Your task to perform on an android device: Open calendar and show me the fourth week of next month Image 0: 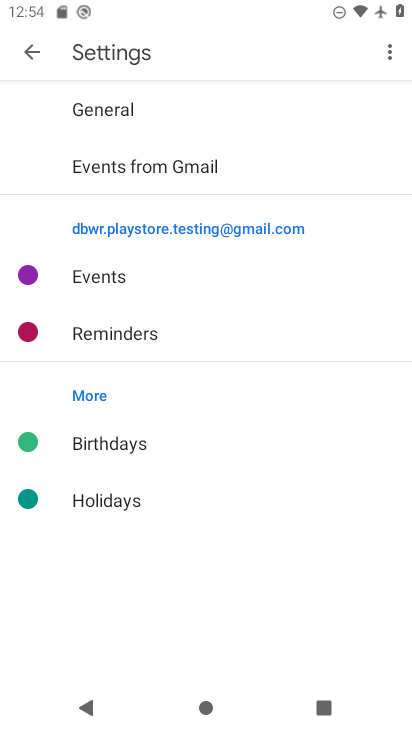
Step 0: press home button
Your task to perform on an android device: Open calendar and show me the fourth week of next month Image 1: 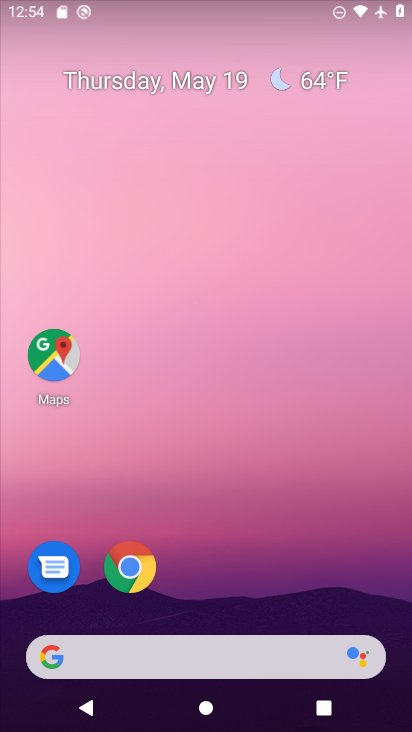
Step 1: drag from (251, 508) to (270, 95)
Your task to perform on an android device: Open calendar and show me the fourth week of next month Image 2: 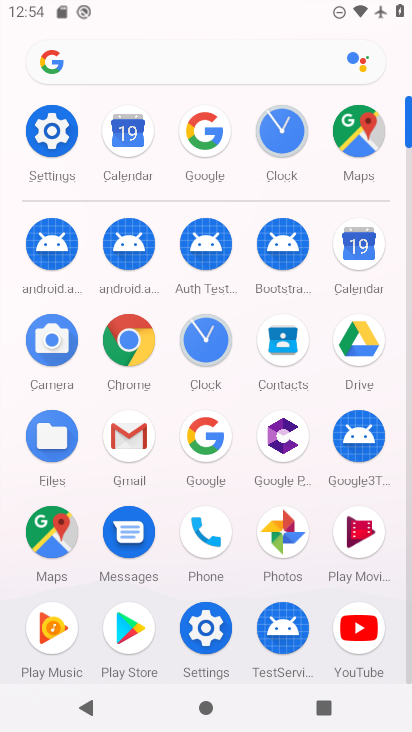
Step 2: click (358, 258)
Your task to perform on an android device: Open calendar and show me the fourth week of next month Image 3: 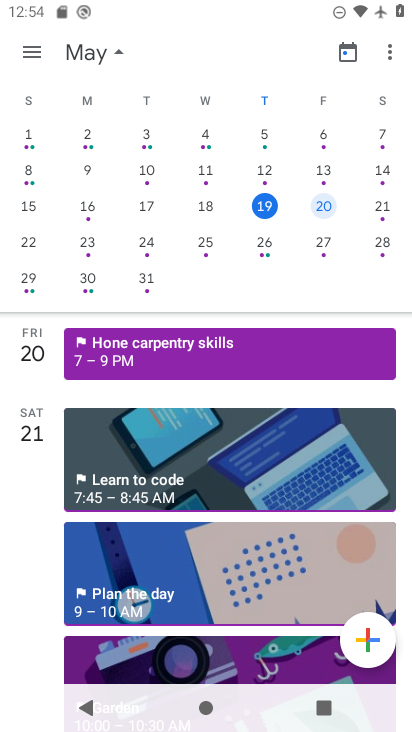
Step 3: drag from (346, 248) to (42, 294)
Your task to perform on an android device: Open calendar and show me the fourth week of next month Image 4: 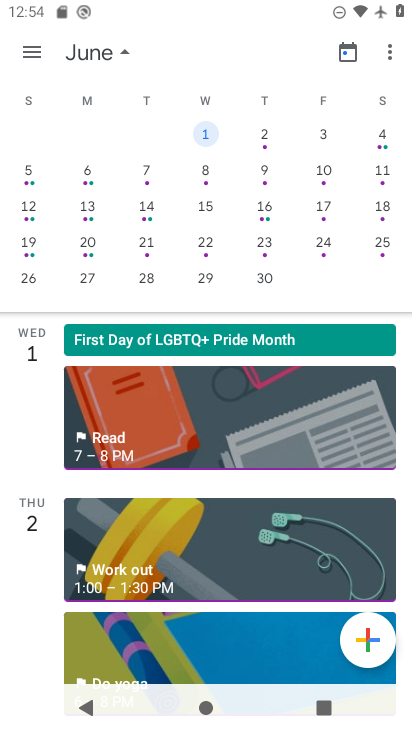
Step 4: click (29, 255)
Your task to perform on an android device: Open calendar and show me the fourth week of next month Image 5: 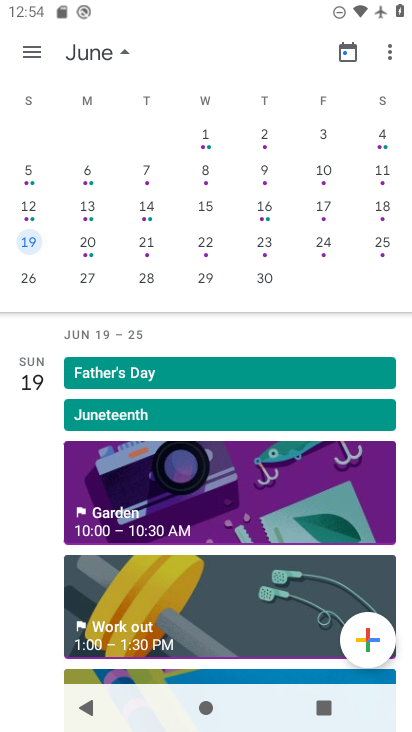
Step 5: click (92, 255)
Your task to perform on an android device: Open calendar and show me the fourth week of next month Image 6: 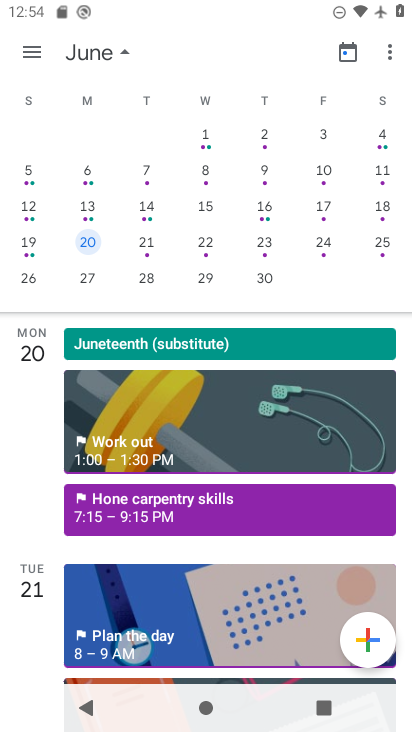
Step 6: click (148, 256)
Your task to perform on an android device: Open calendar and show me the fourth week of next month Image 7: 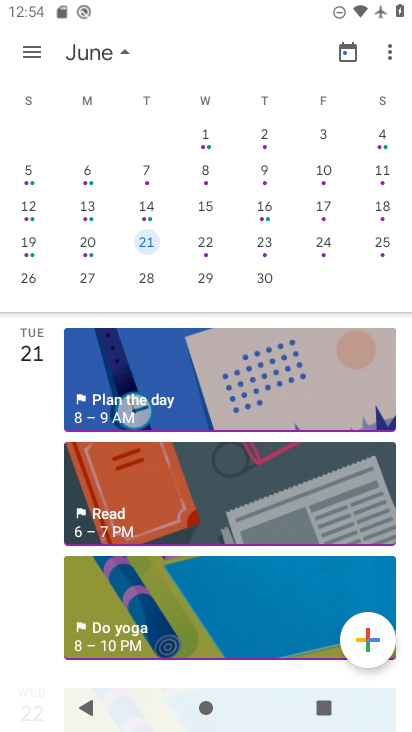
Step 7: click (202, 259)
Your task to perform on an android device: Open calendar and show me the fourth week of next month Image 8: 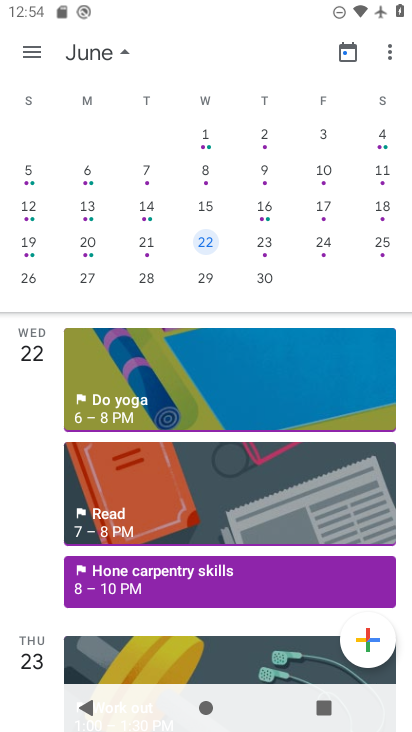
Step 8: click (272, 254)
Your task to perform on an android device: Open calendar and show me the fourth week of next month Image 9: 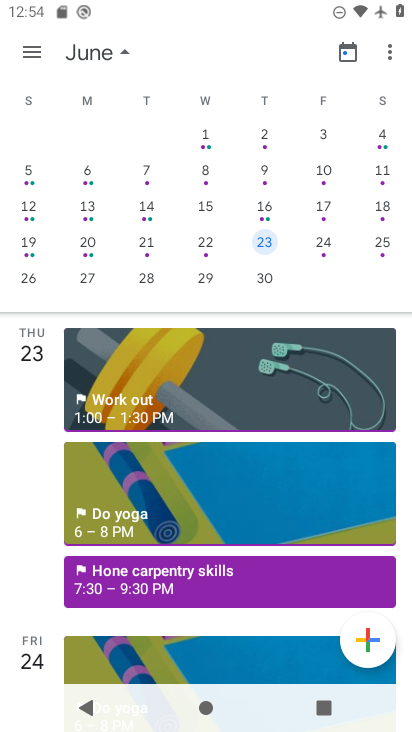
Step 9: click (323, 253)
Your task to perform on an android device: Open calendar and show me the fourth week of next month Image 10: 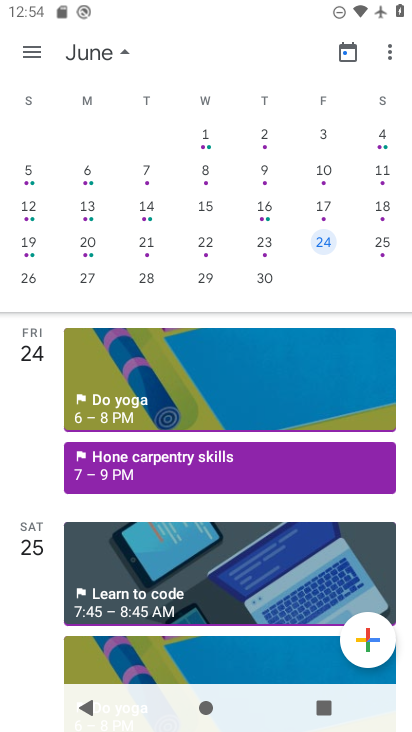
Step 10: click (388, 253)
Your task to perform on an android device: Open calendar and show me the fourth week of next month Image 11: 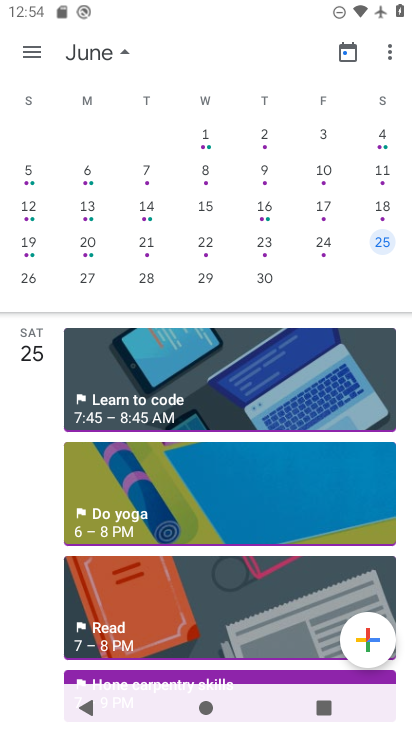
Step 11: task complete